Your task to perform on an android device: search for starred emails in the gmail app Image 0: 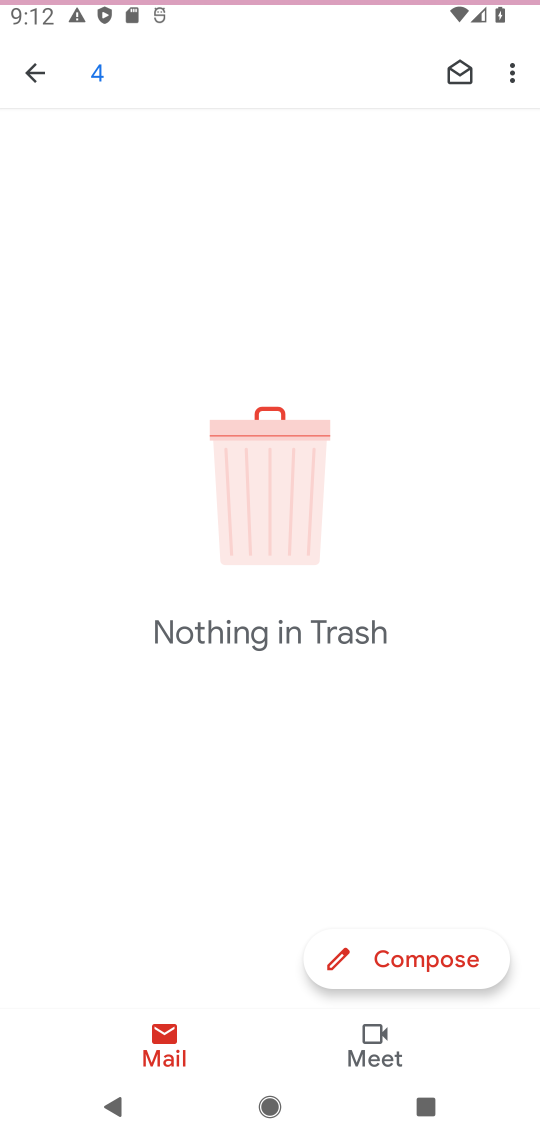
Step 0: press home button
Your task to perform on an android device: search for starred emails in the gmail app Image 1: 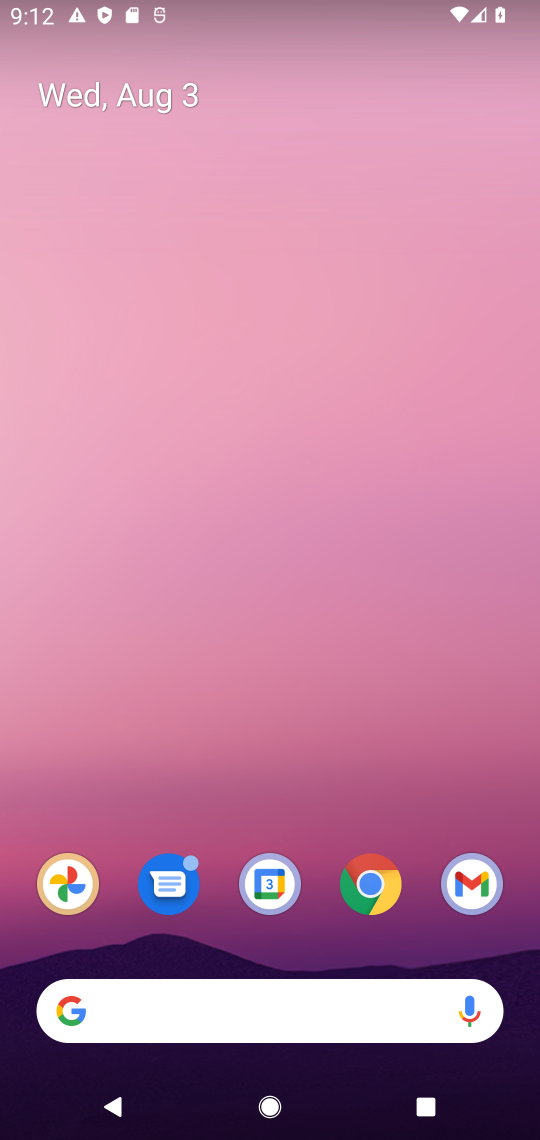
Step 1: drag from (270, 945) to (188, 189)
Your task to perform on an android device: search for starred emails in the gmail app Image 2: 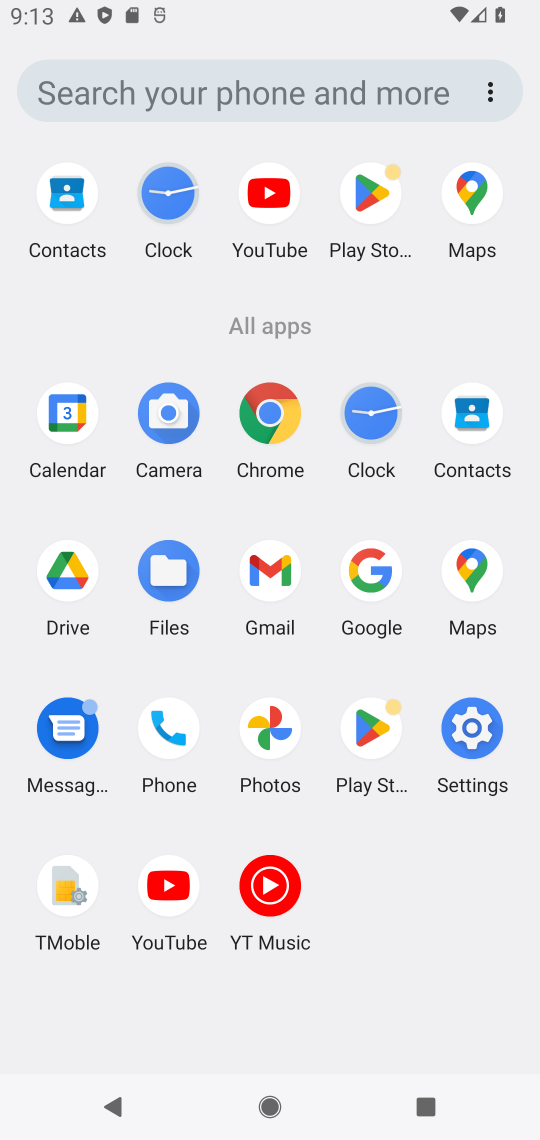
Step 2: click (261, 570)
Your task to perform on an android device: search for starred emails in the gmail app Image 3: 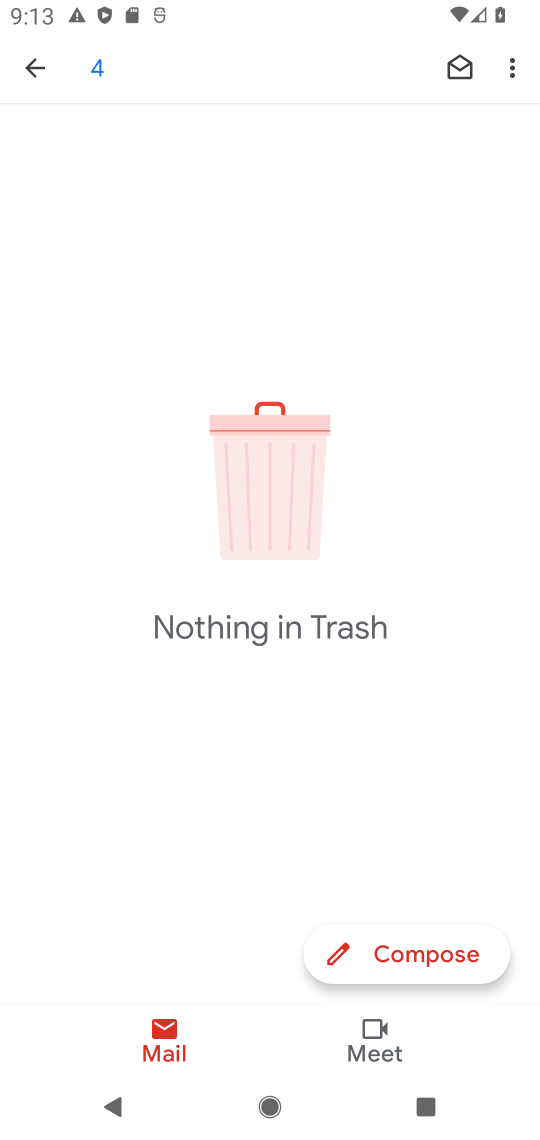
Step 3: click (33, 60)
Your task to perform on an android device: search for starred emails in the gmail app Image 4: 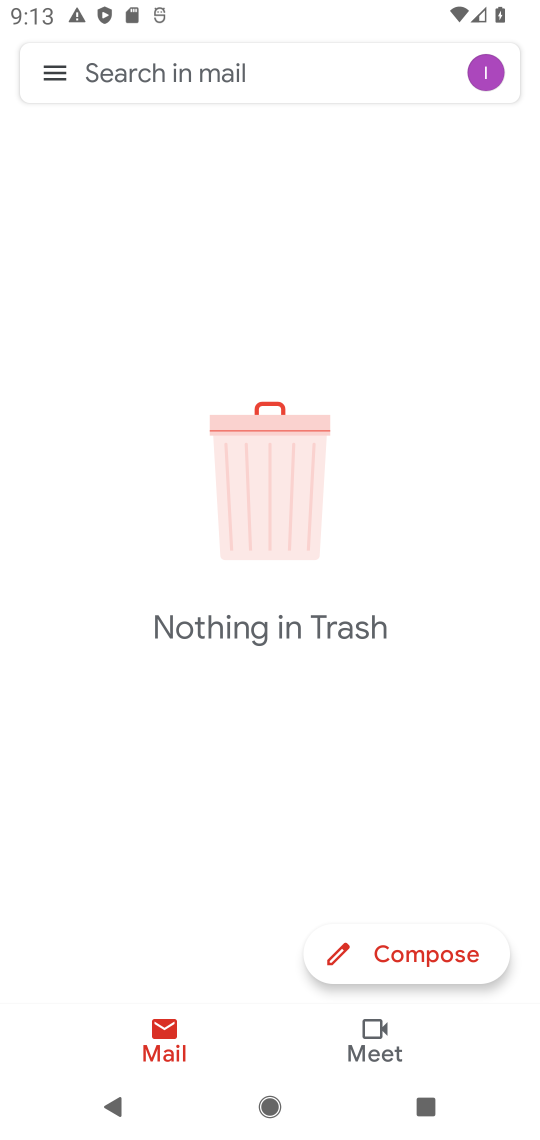
Step 4: click (52, 79)
Your task to perform on an android device: search for starred emails in the gmail app Image 5: 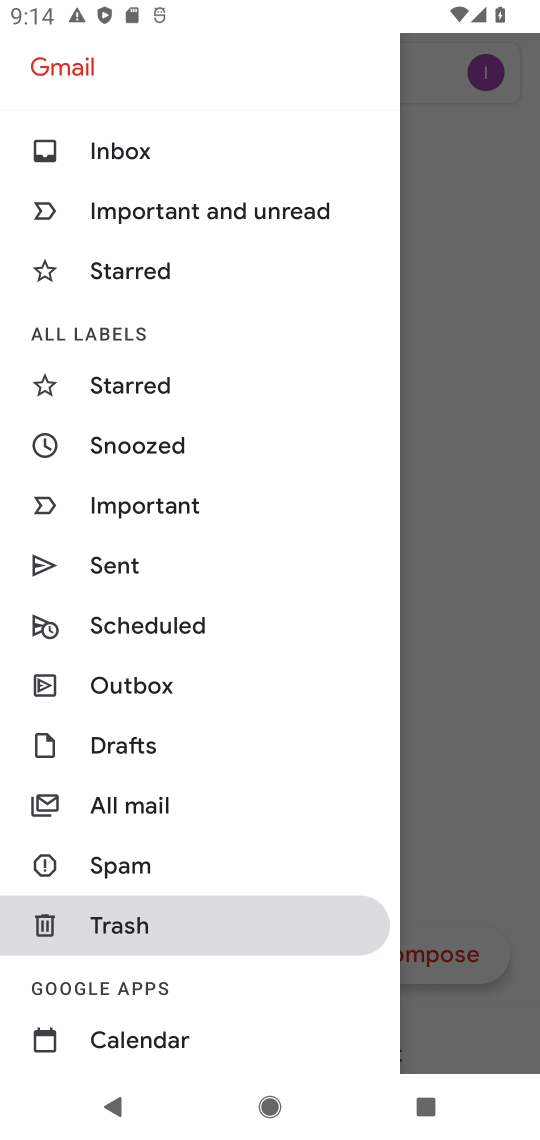
Step 5: drag from (168, 926) to (167, 664)
Your task to perform on an android device: search for starred emails in the gmail app Image 6: 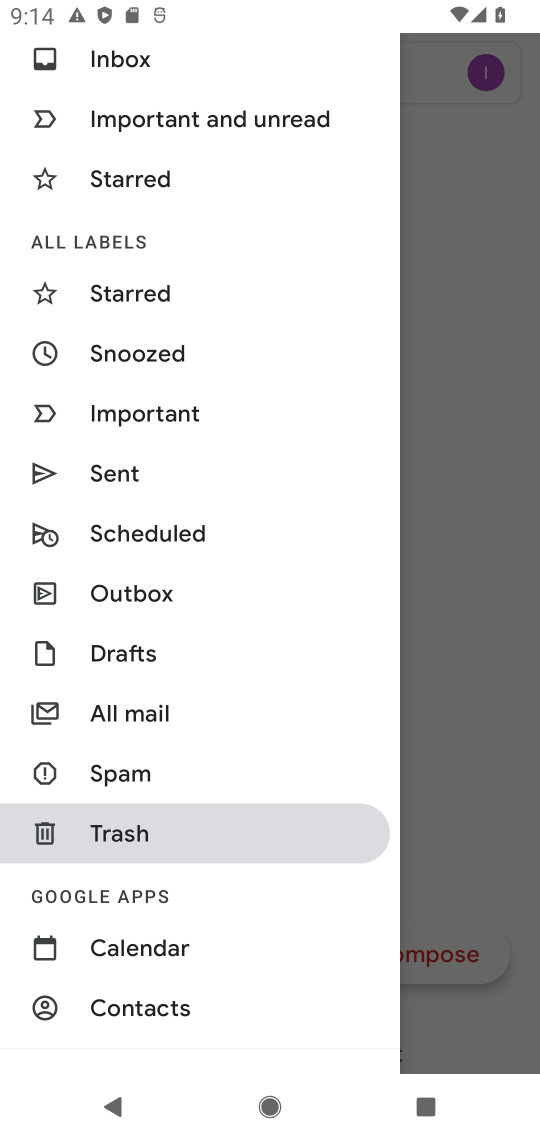
Step 6: click (174, 182)
Your task to perform on an android device: search for starred emails in the gmail app Image 7: 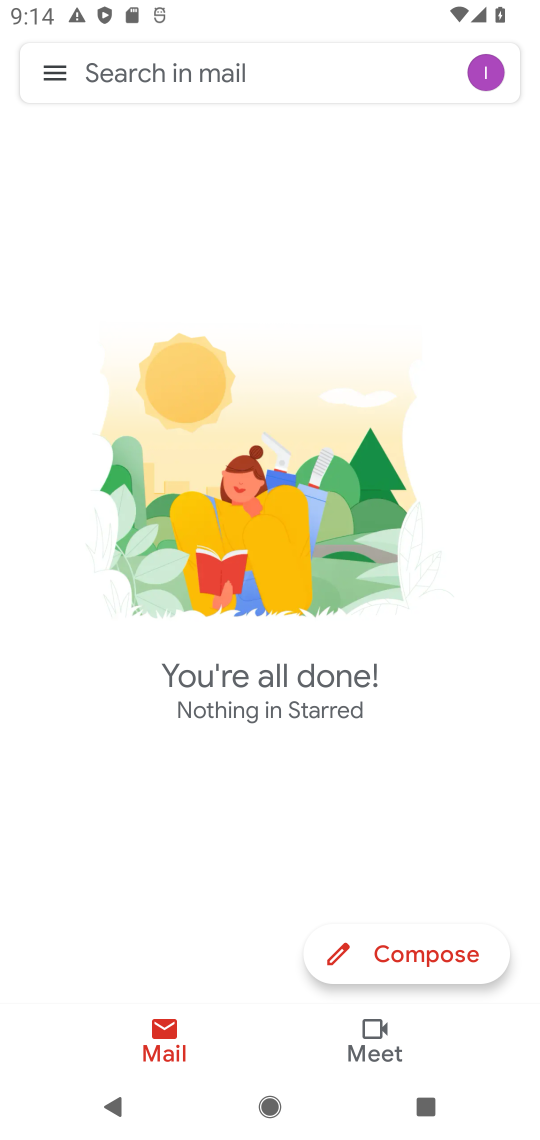
Step 7: task complete